Your task to perform on an android device: find photos in the google photos app Image 0: 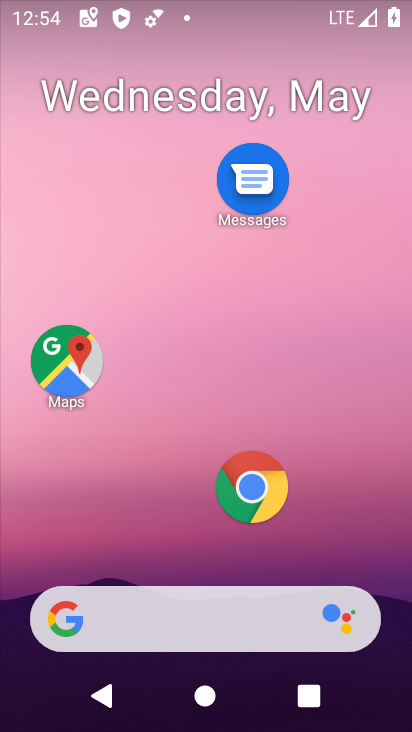
Step 0: drag from (173, 547) to (189, 193)
Your task to perform on an android device: find photos in the google photos app Image 1: 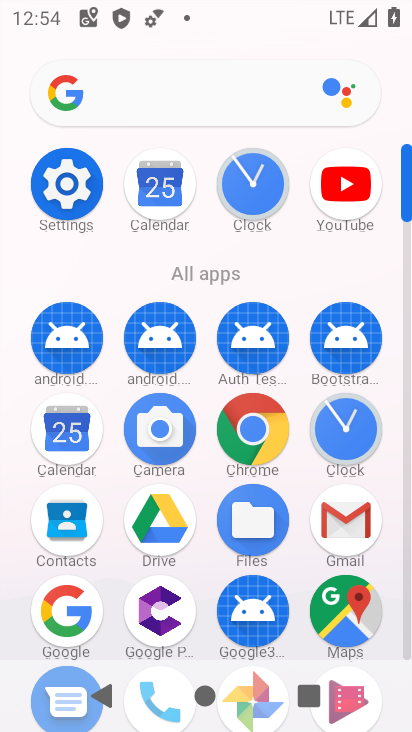
Step 1: drag from (192, 590) to (198, 417)
Your task to perform on an android device: find photos in the google photos app Image 2: 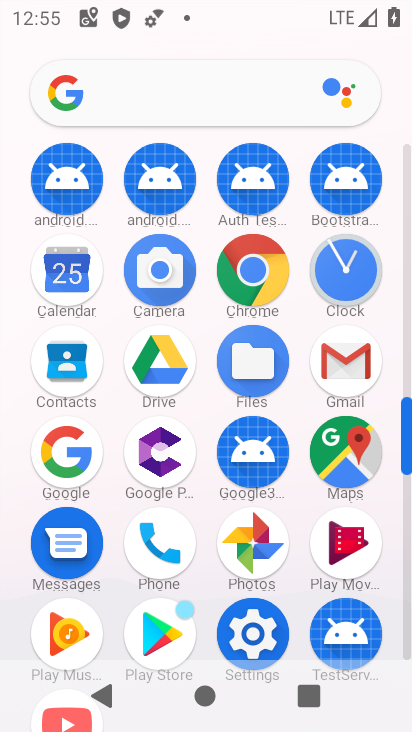
Step 2: click (252, 540)
Your task to perform on an android device: find photos in the google photos app Image 3: 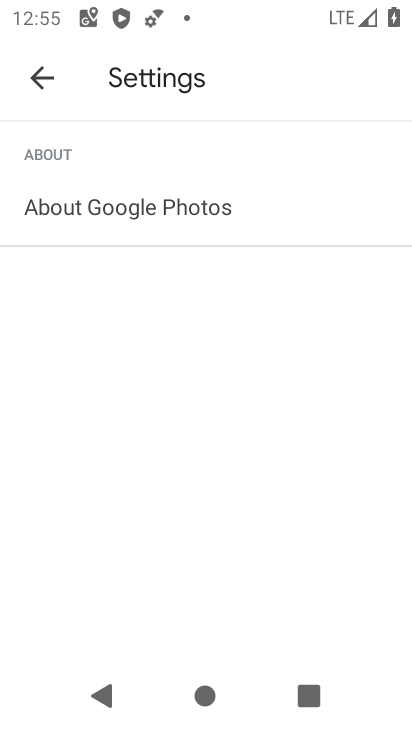
Step 3: click (46, 73)
Your task to perform on an android device: find photos in the google photos app Image 4: 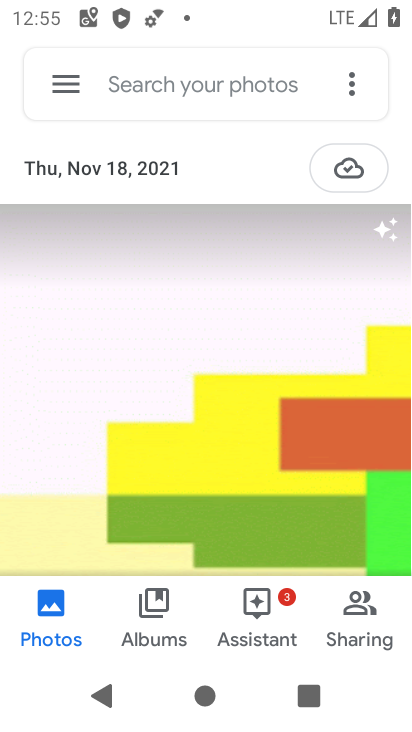
Step 4: task complete